Your task to perform on an android device: Turn on the flashlight Image 0: 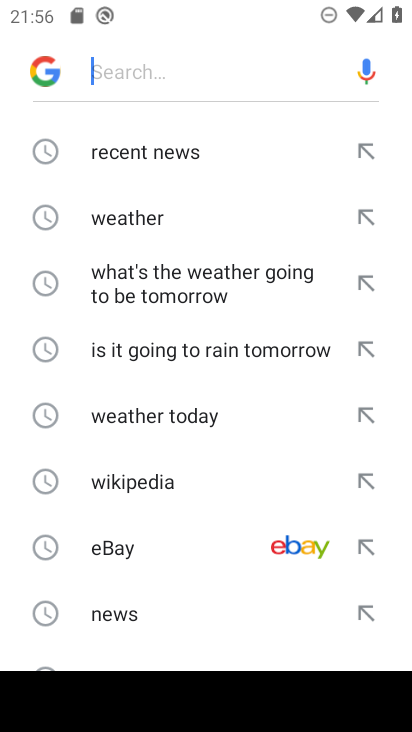
Step 0: press home button
Your task to perform on an android device: Turn on the flashlight Image 1: 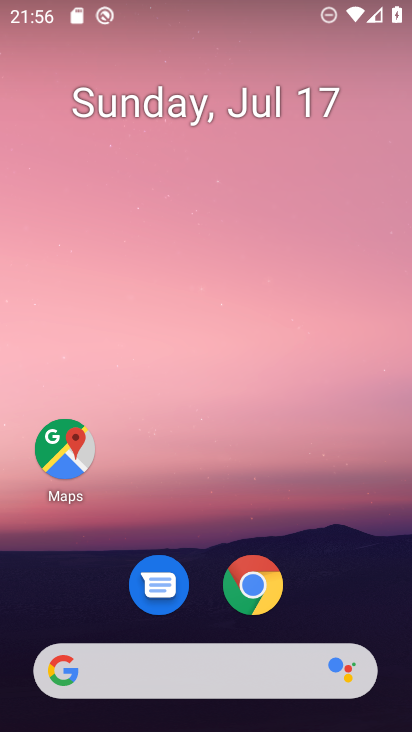
Step 1: task complete